Your task to perform on an android device: Go to CNN.com Image 0: 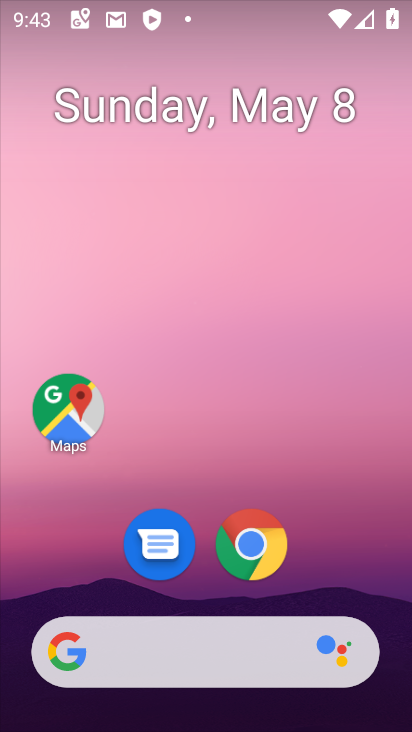
Step 0: click (237, 544)
Your task to perform on an android device: Go to CNN.com Image 1: 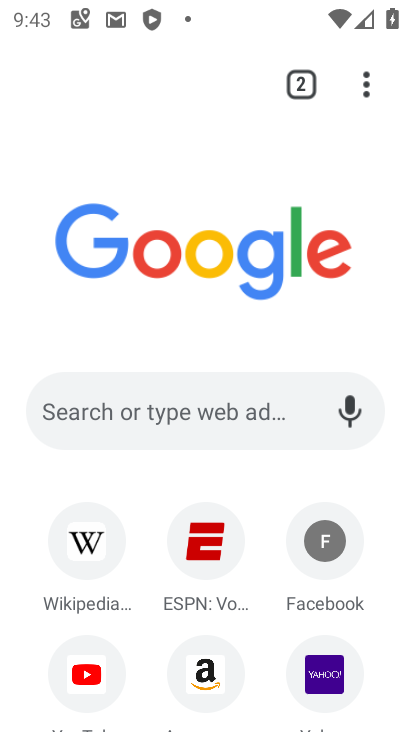
Step 1: click (184, 425)
Your task to perform on an android device: Go to CNN.com Image 2: 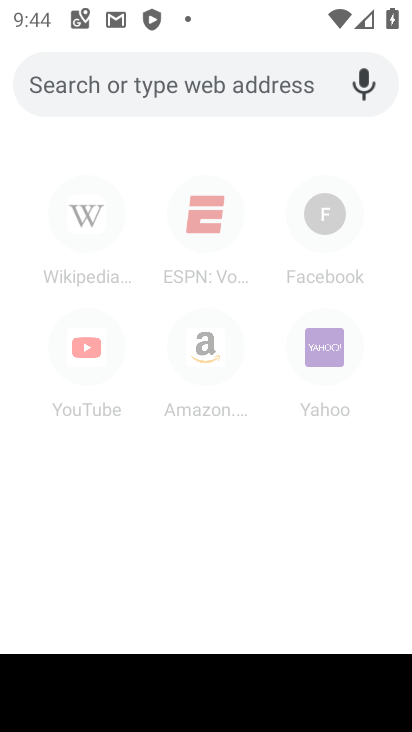
Step 2: type "cnn"
Your task to perform on an android device: Go to CNN.com Image 3: 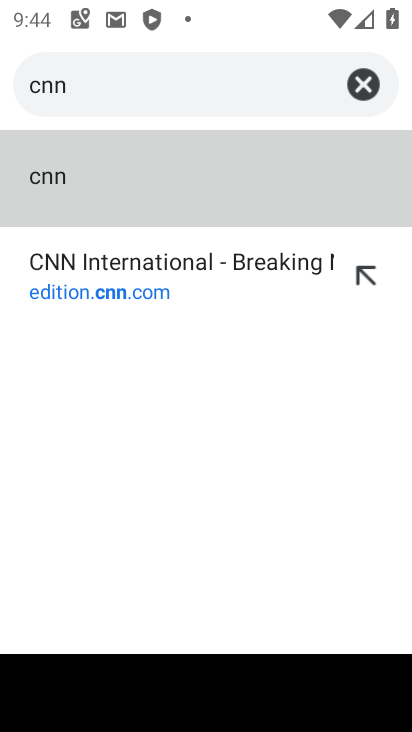
Step 3: click (146, 263)
Your task to perform on an android device: Go to CNN.com Image 4: 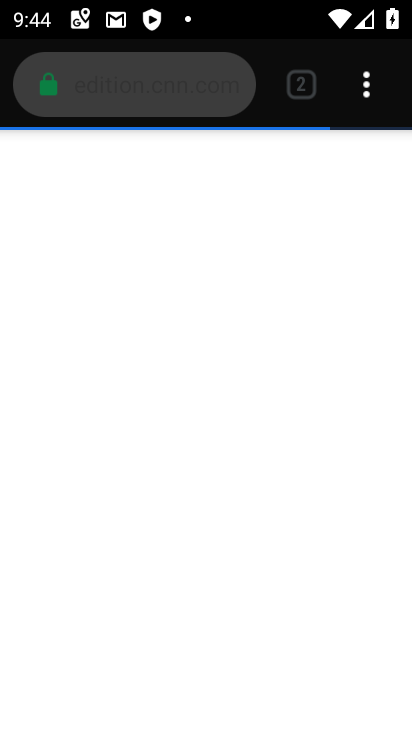
Step 4: task complete